Your task to perform on an android device: turn pop-ups on in chrome Image 0: 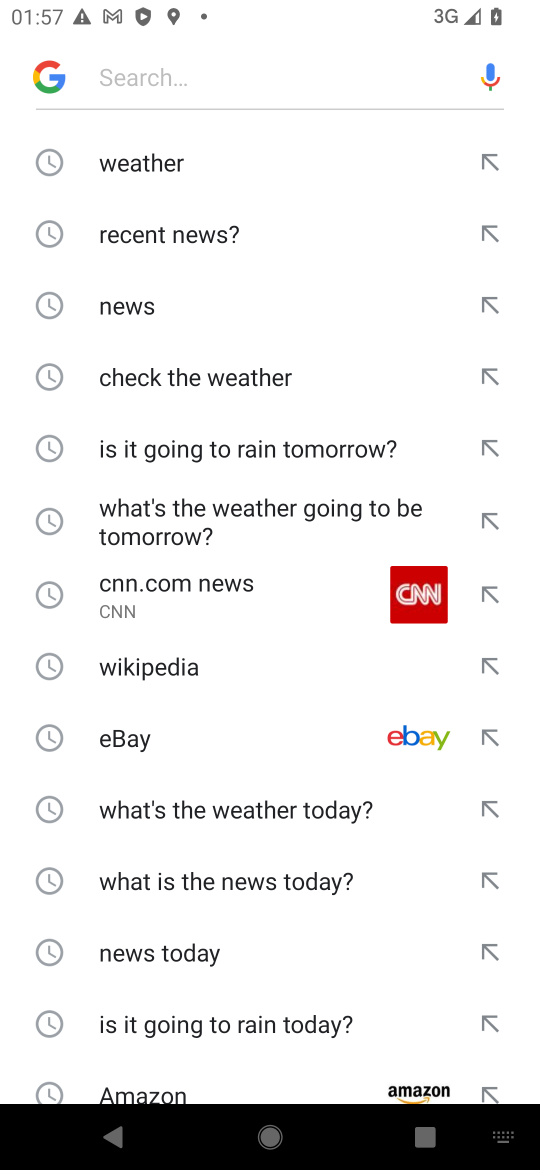
Step 0: press home button
Your task to perform on an android device: turn pop-ups on in chrome Image 1: 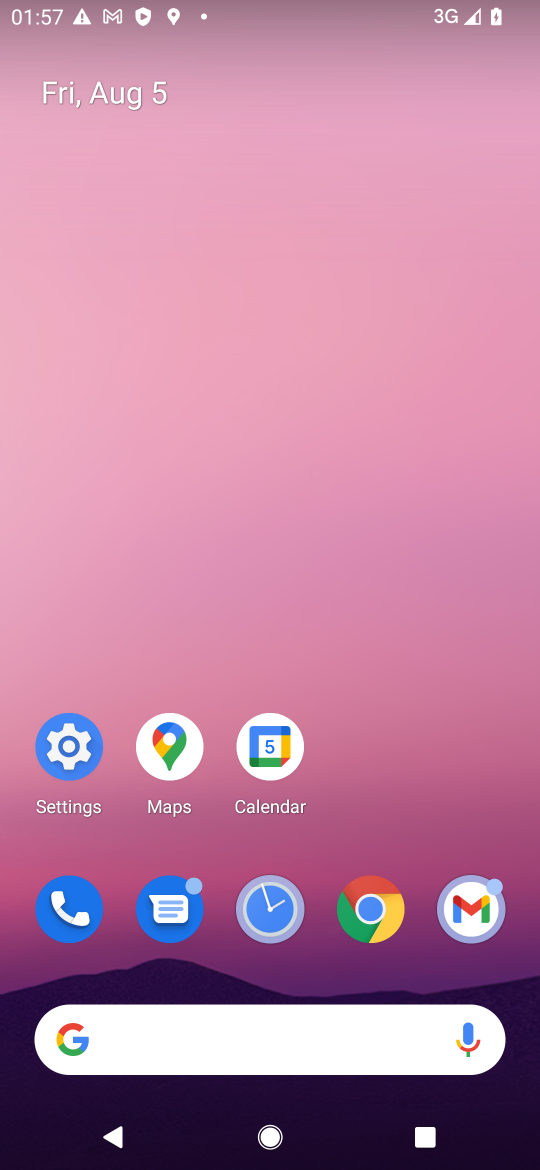
Step 1: click (380, 914)
Your task to perform on an android device: turn pop-ups on in chrome Image 2: 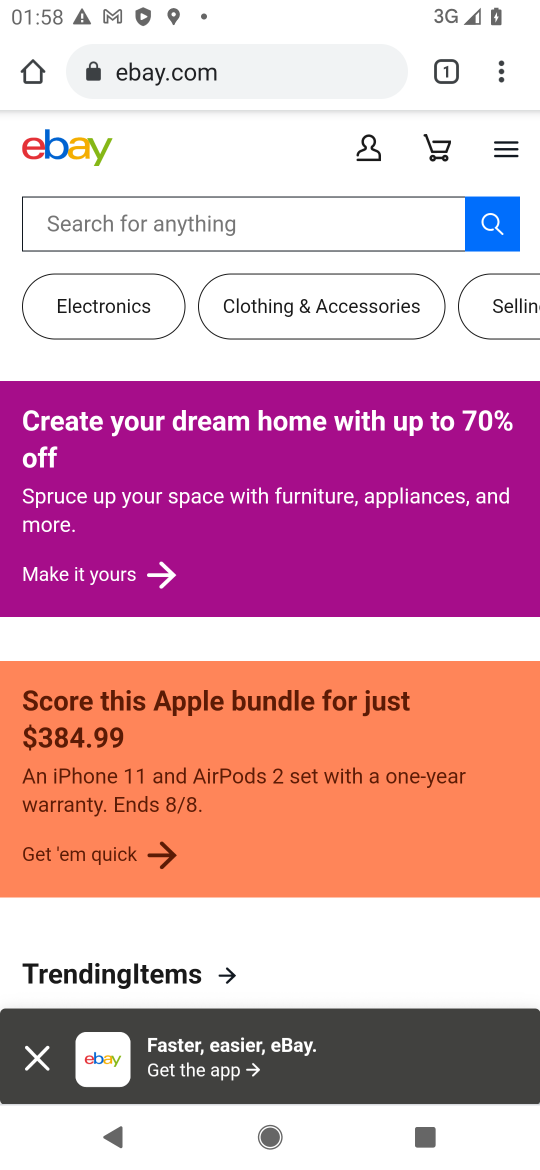
Step 2: click (507, 60)
Your task to perform on an android device: turn pop-ups on in chrome Image 3: 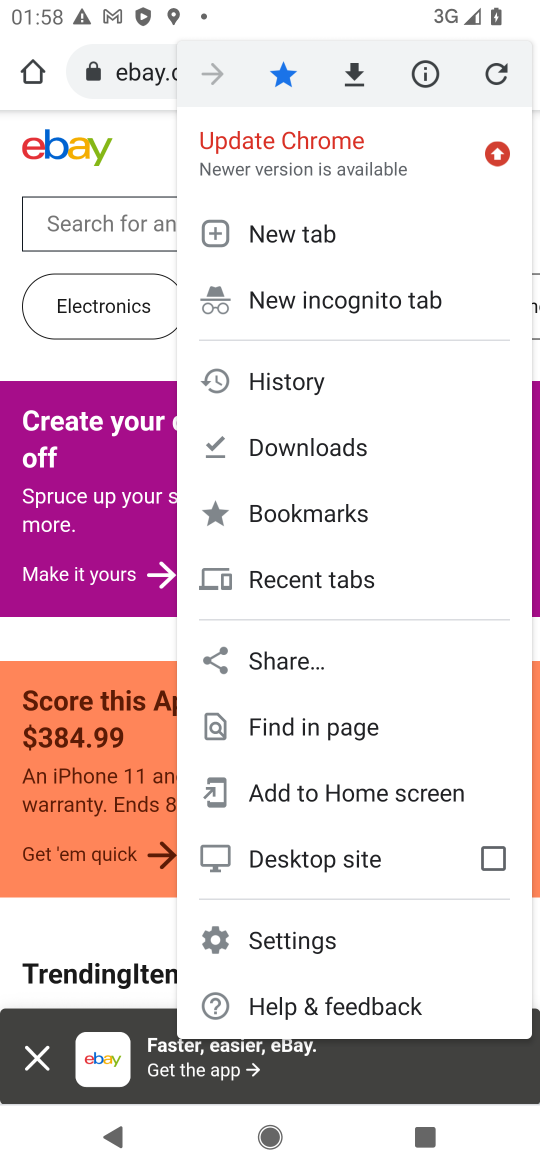
Step 3: click (307, 936)
Your task to perform on an android device: turn pop-ups on in chrome Image 4: 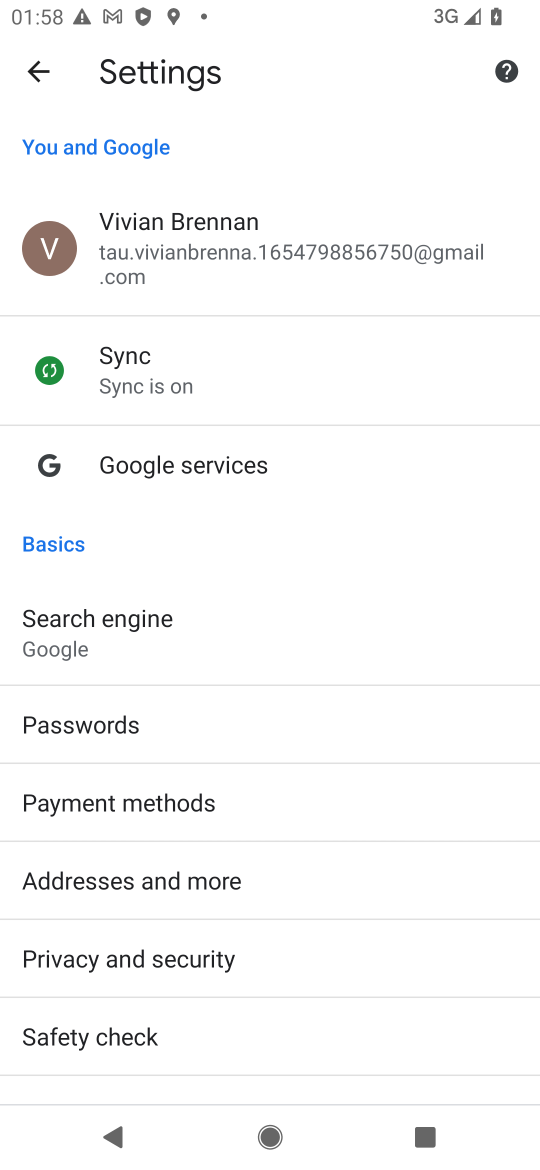
Step 4: drag from (250, 1008) to (273, 459)
Your task to perform on an android device: turn pop-ups on in chrome Image 5: 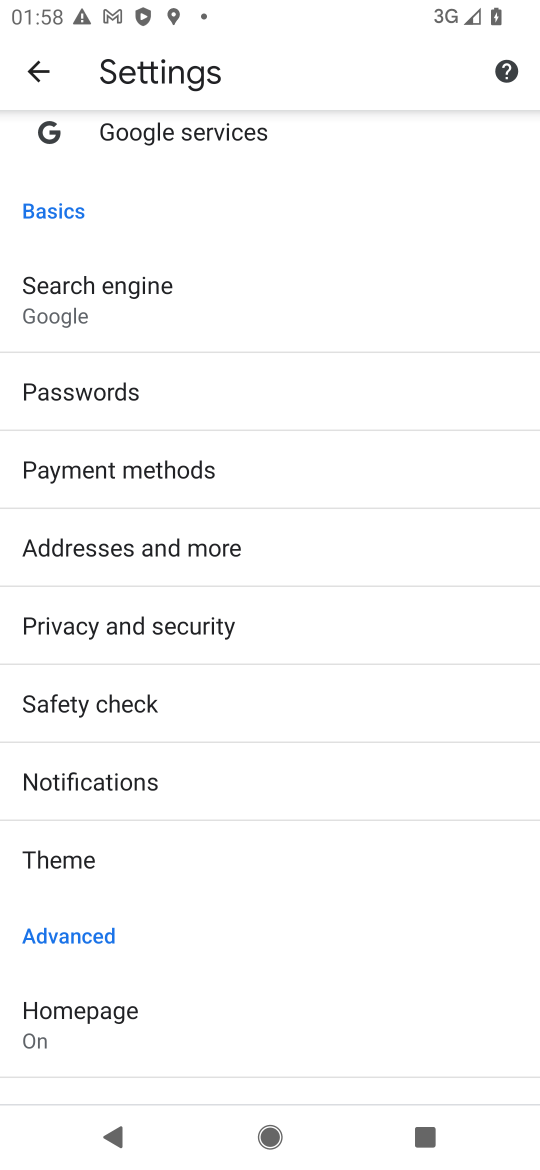
Step 5: drag from (235, 946) to (235, 341)
Your task to perform on an android device: turn pop-ups on in chrome Image 6: 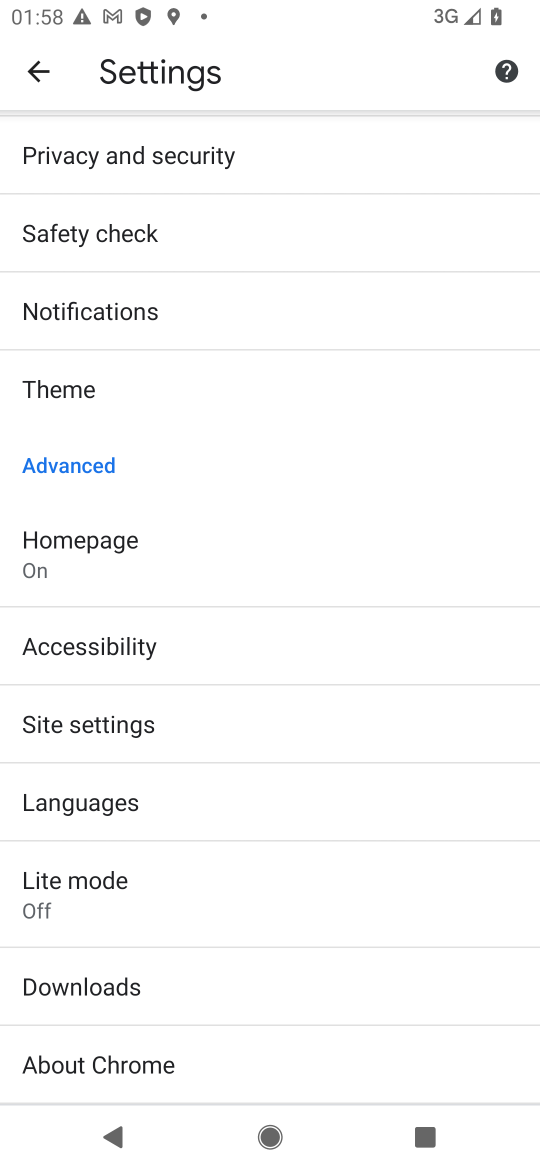
Step 6: click (80, 721)
Your task to perform on an android device: turn pop-ups on in chrome Image 7: 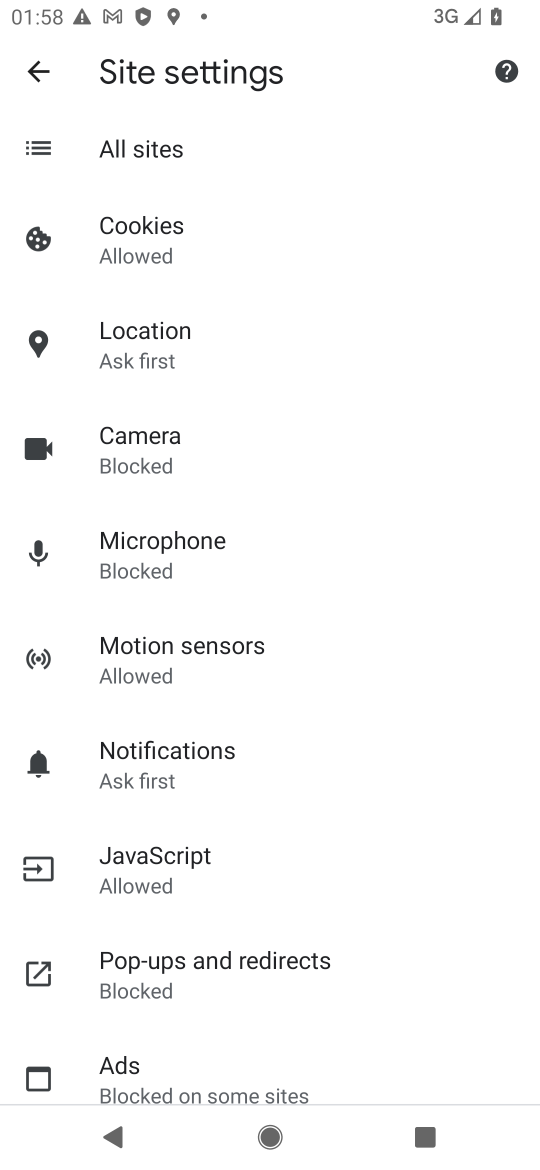
Step 7: click (181, 953)
Your task to perform on an android device: turn pop-ups on in chrome Image 8: 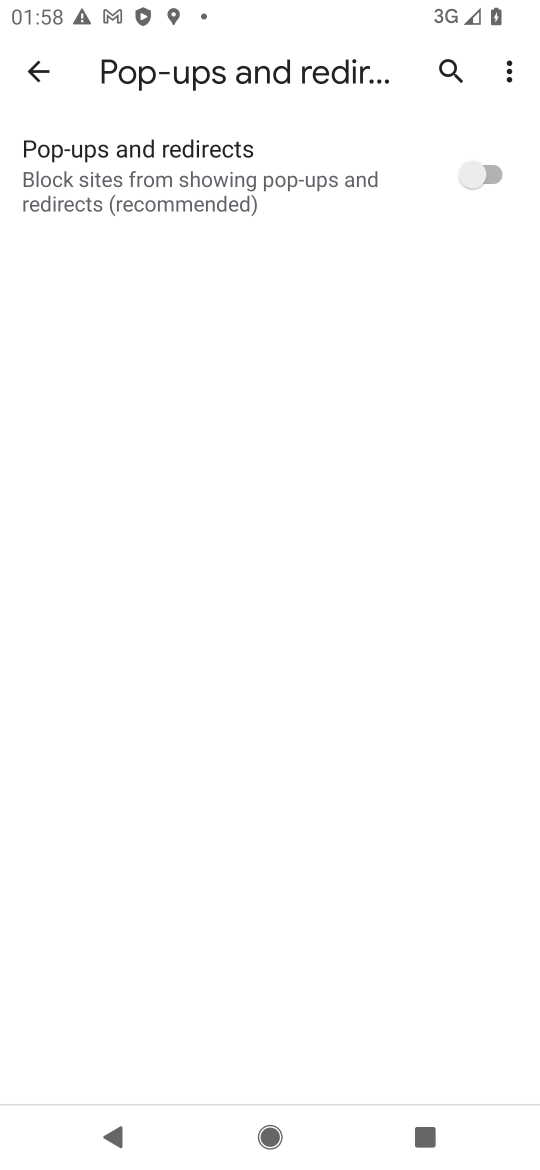
Step 8: click (468, 164)
Your task to perform on an android device: turn pop-ups on in chrome Image 9: 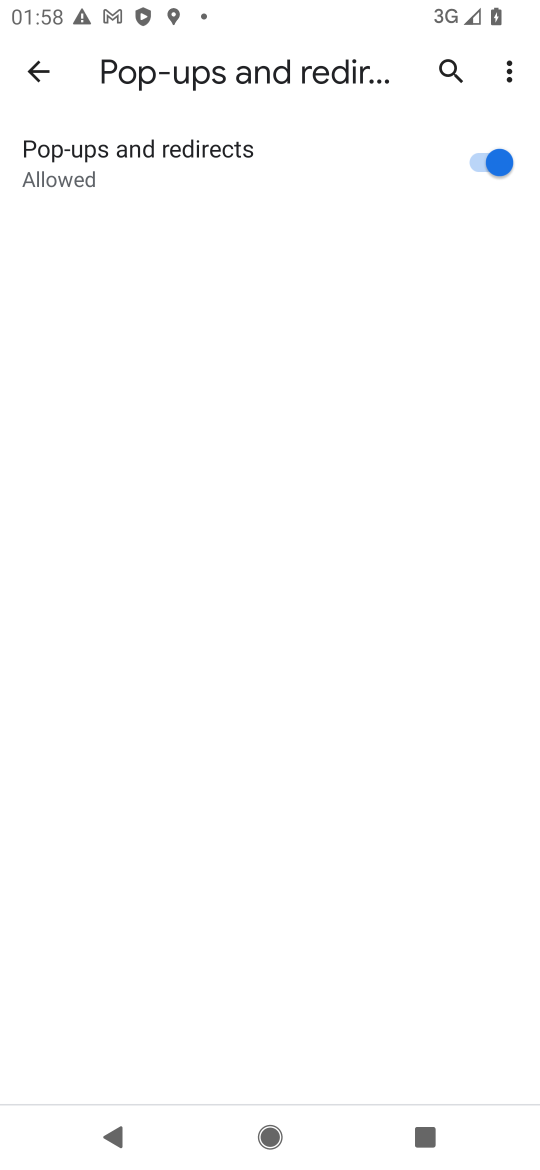
Step 9: task complete